Your task to perform on an android device: move an email to a new category in the gmail app Image 0: 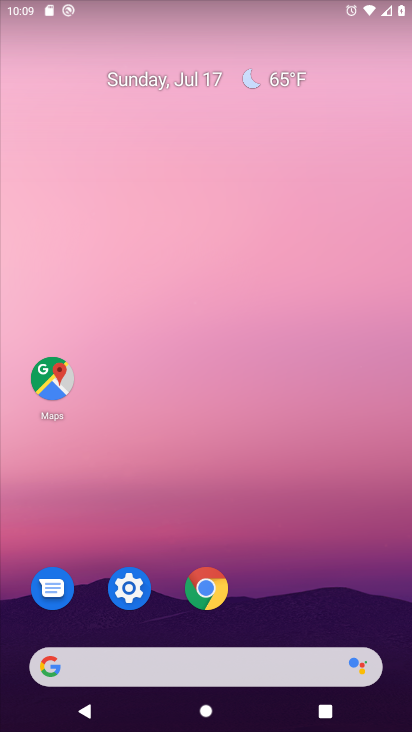
Step 0: drag from (282, 668) to (188, 358)
Your task to perform on an android device: move an email to a new category in the gmail app Image 1: 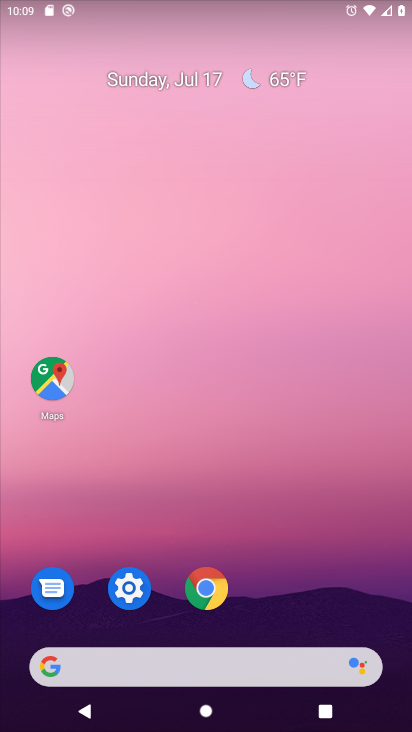
Step 1: drag from (163, 566) to (189, 263)
Your task to perform on an android device: move an email to a new category in the gmail app Image 2: 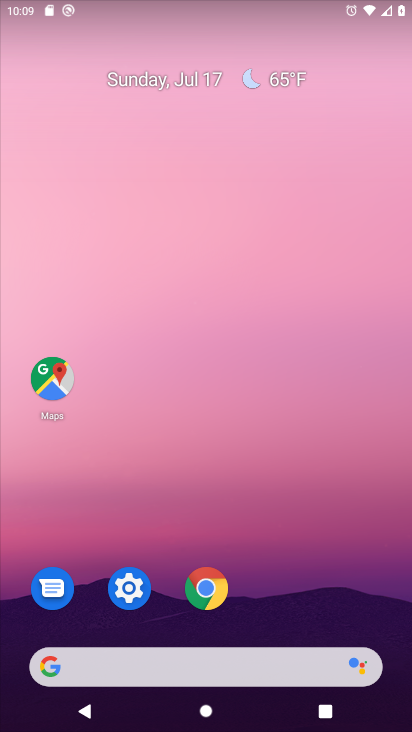
Step 2: drag from (194, 717) to (139, 253)
Your task to perform on an android device: move an email to a new category in the gmail app Image 3: 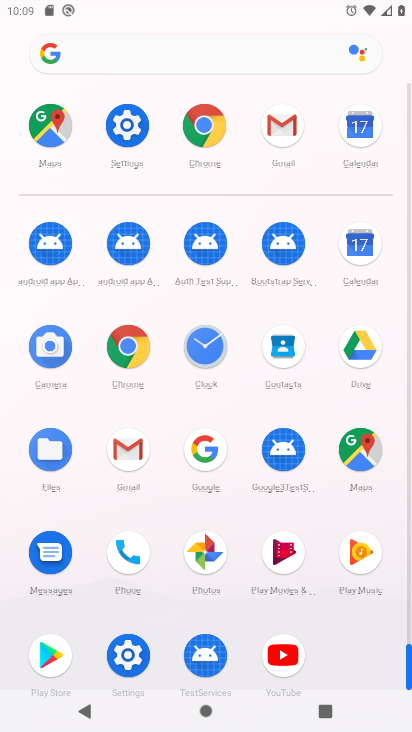
Step 3: click (120, 434)
Your task to perform on an android device: move an email to a new category in the gmail app Image 4: 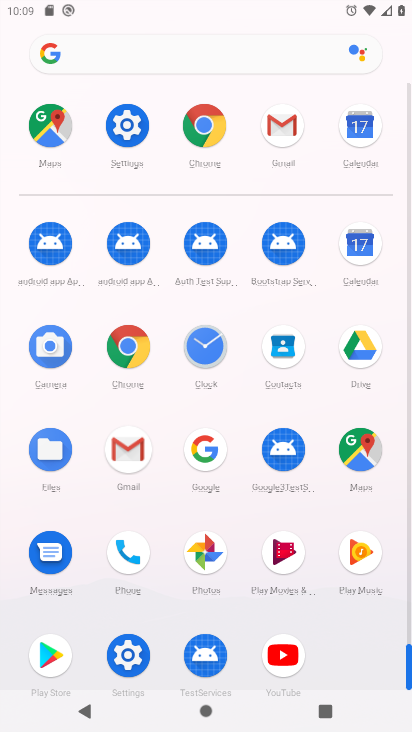
Step 4: click (119, 432)
Your task to perform on an android device: move an email to a new category in the gmail app Image 5: 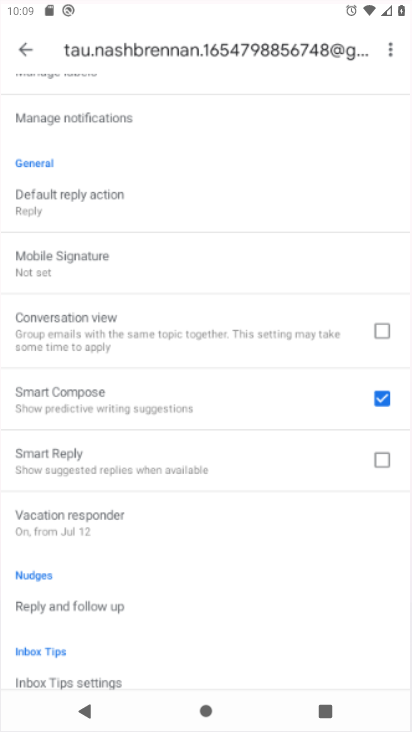
Step 5: click (120, 437)
Your task to perform on an android device: move an email to a new category in the gmail app Image 6: 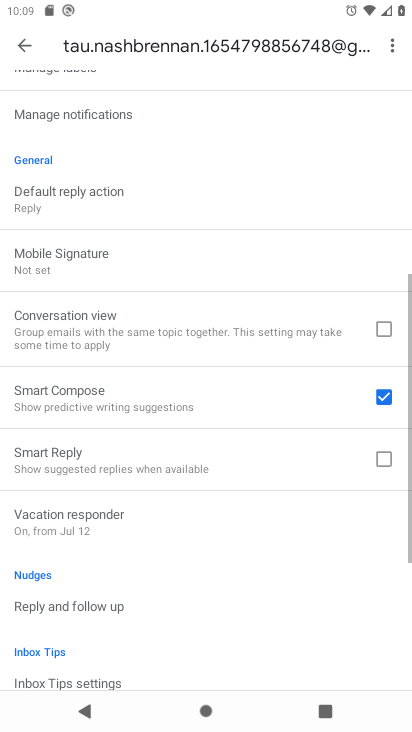
Step 6: click (123, 438)
Your task to perform on an android device: move an email to a new category in the gmail app Image 7: 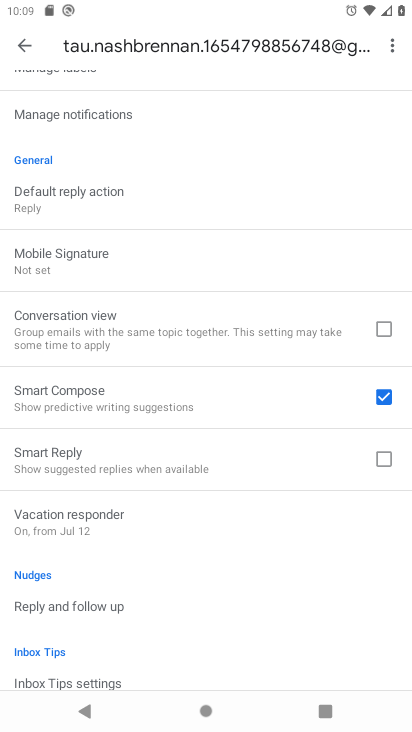
Step 7: drag from (94, 561) to (74, 200)
Your task to perform on an android device: move an email to a new category in the gmail app Image 8: 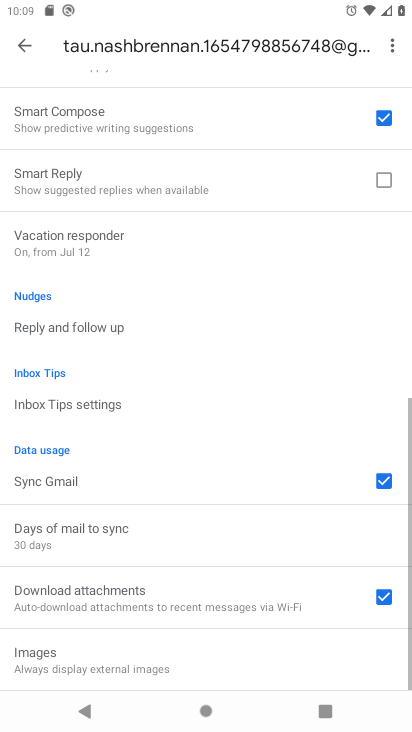
Step 8: drag from (144, 551) to (109, 225)
Your task to perform on an android device: move an email to a new category in the gmail app Image 9: 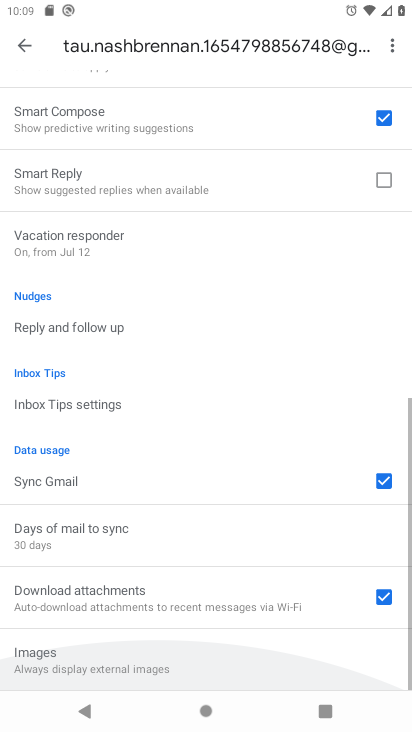
Step 9: drag from (128, 546) to (126, 280)
Your task to perform on an android device: move an email to a new category in the gmail app Image 10: 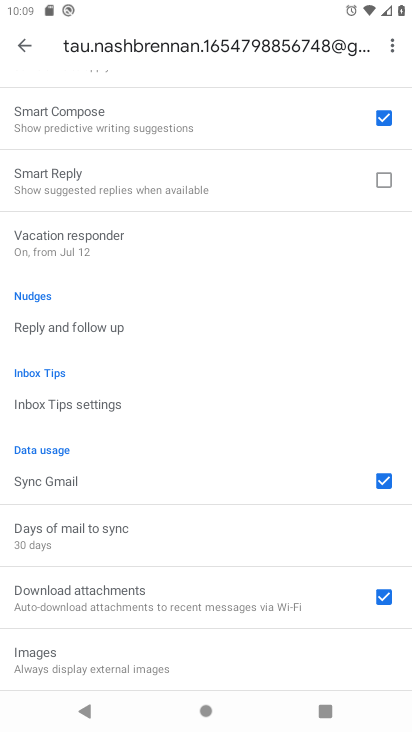
Step 10: click (17, 42)
Your task to perform on an android device: move an email to a new category in the gmail app Image 11: 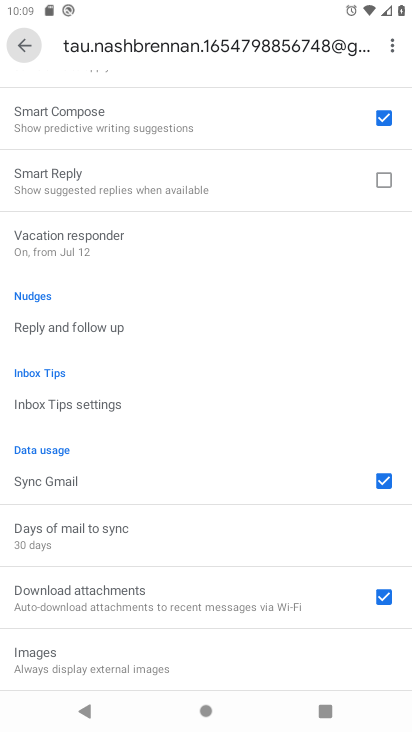
Step 11: click (17, 42)
Your task to perform on an android device: move an email to a new category in the gmail app Image 12: 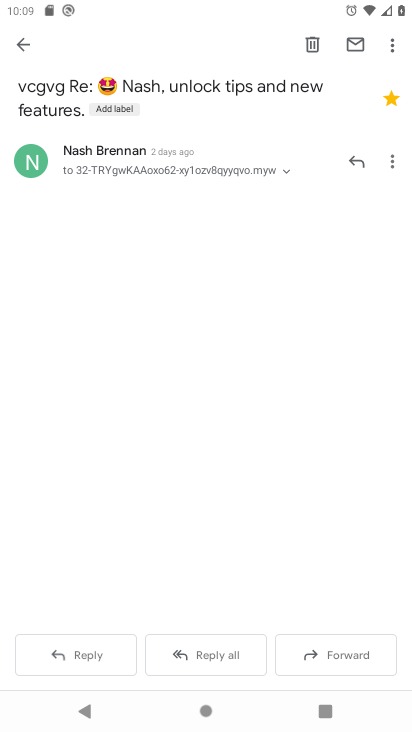
Step 12: click (393, 158)
Your task to perform on an android device: move an email to a new category in the gmail app Image 13: 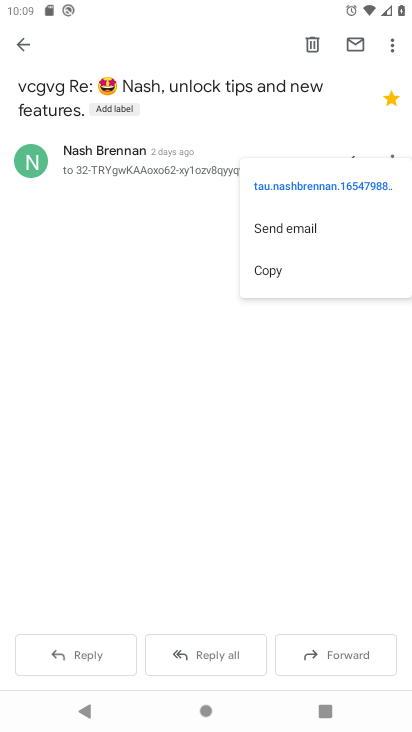
Step 13: click (107, 272)
Your task to perform on an android device: move an email to a new category in the gmail app Image 14: 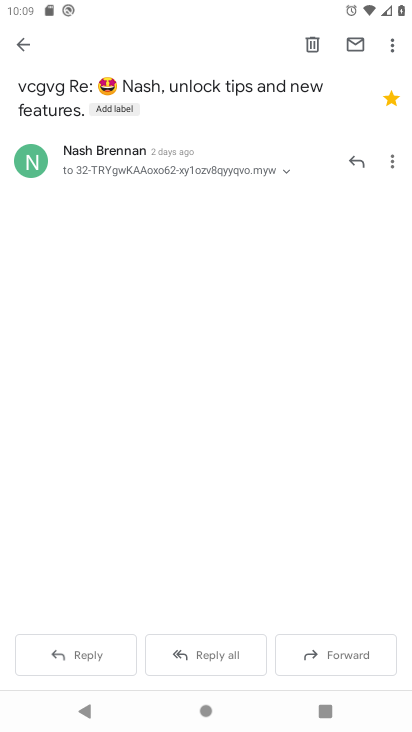
Step 14: click (138, 224)
Your task to perform on an android device: move an email to a new category in the gmail app Image 15: 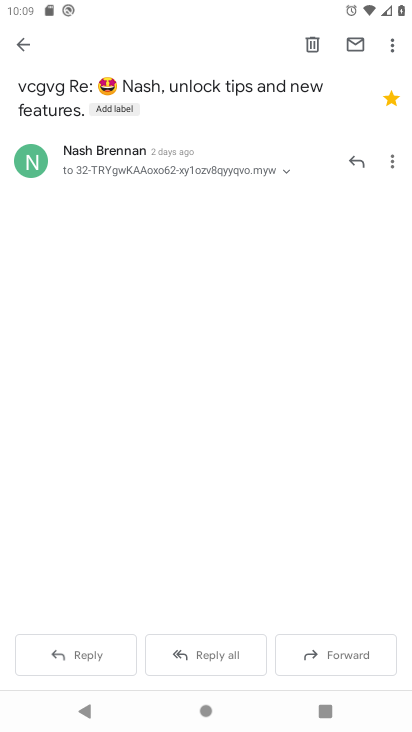
Step 15: click (391, 41)
Your task to perform on an android device: move an email to a new category in the gmail app Image 16: 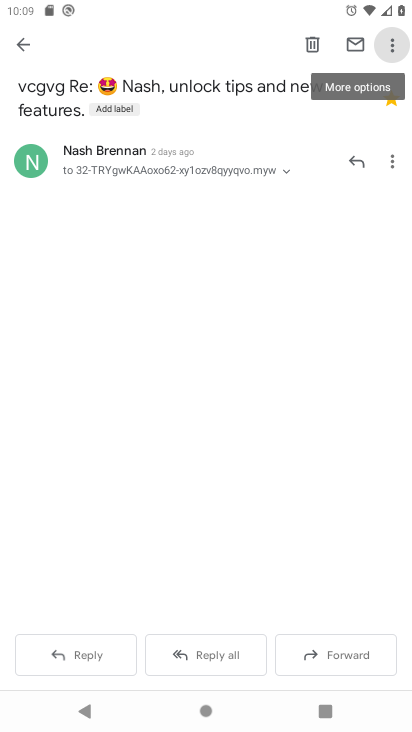
Step 16: click (391, 41)
Your task to perform on an android device: move an email to a new category in the gmail app Image 17: 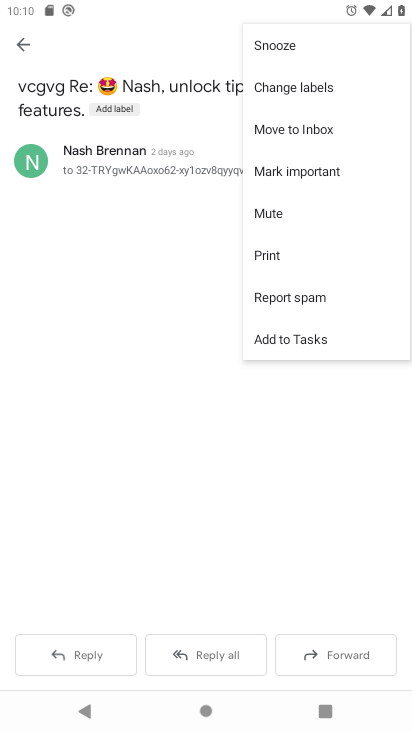
Step 17: click (391, 41)
Your task to perform on an android device: move an email to a new category in the gmail app Image 18: 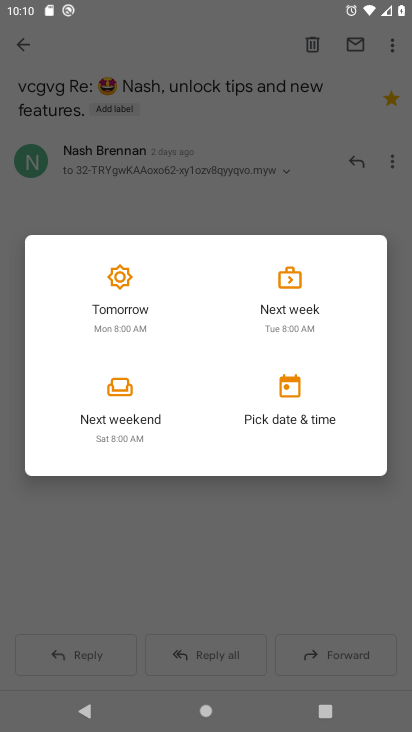
Step 18: click (305, 129)
Your task to perform on an android device: move an email to a new category in the gmail app Image 19: 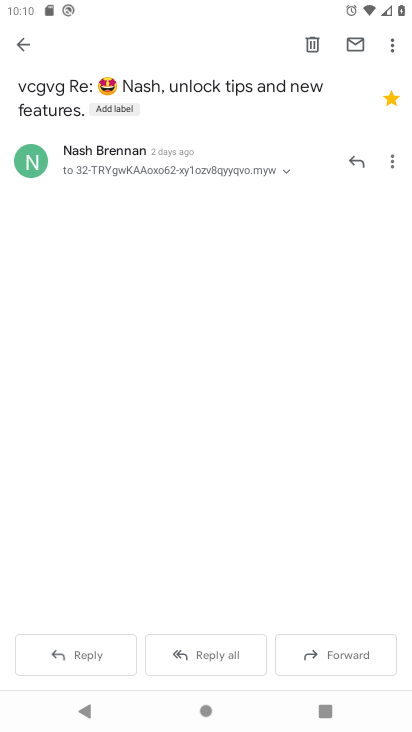
Step 19: click (391, 46)
Your task to perform on an android device: move an email to a new category in the gmail app Image 20: 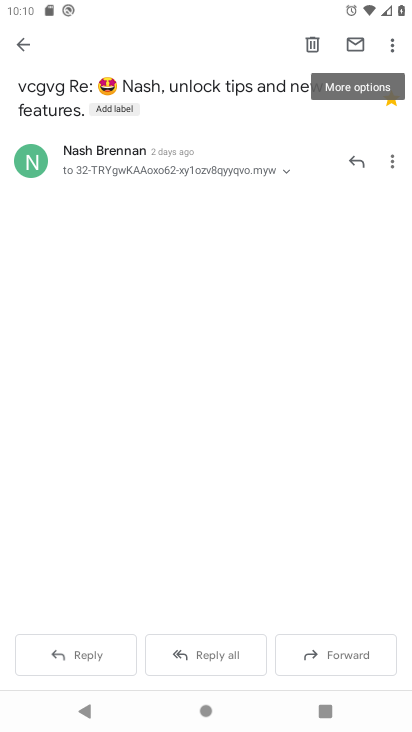
Step 20: click (389, 39)
Your task to perform on an android device: move an email to a new category in the gmail app Image 21: 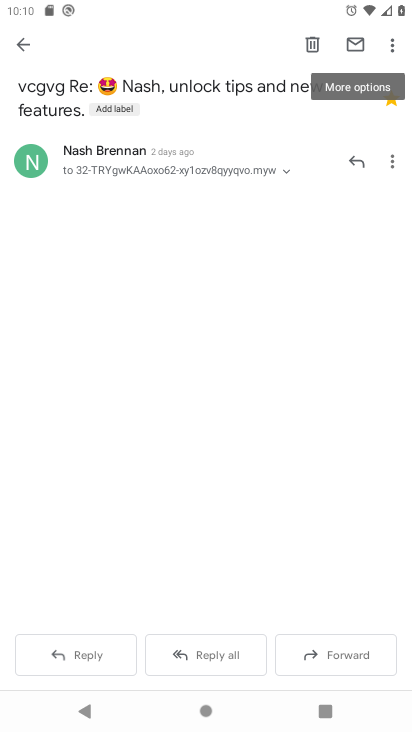
Step 21: click (389, 39)
Your task to perform on an android device: move an email to a new category in the gmail app Image 22: 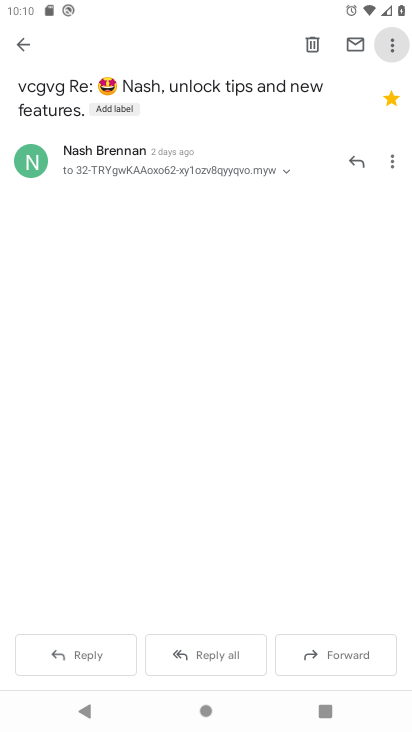
Step 22: click (389, 39)
Your task to perform on an android device: move an email to a new category in the gmail app Image 23: 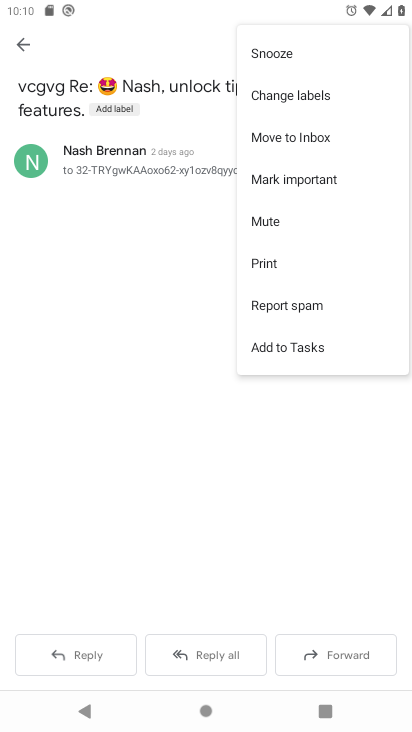
Step 23: click (297, 138)
Your task to perform on an android device: move an email to a new category in the gmail app Image 24: 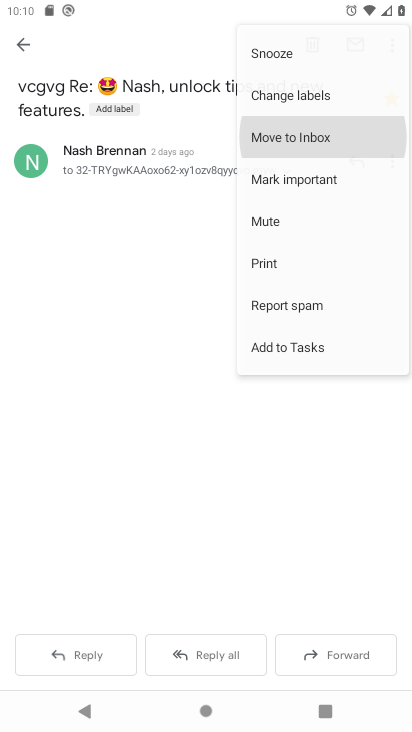
Step 24: click (297, 138)
Your task to perform on an android device: move an email to a new category in the gmail app Image 25: 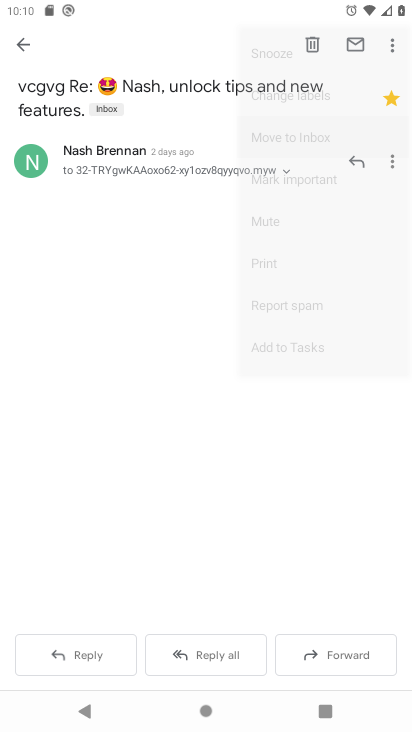
Step 25: click (299, 137)
Your task to perform on an android device: move an email to a new category in the gmail app Image 26: 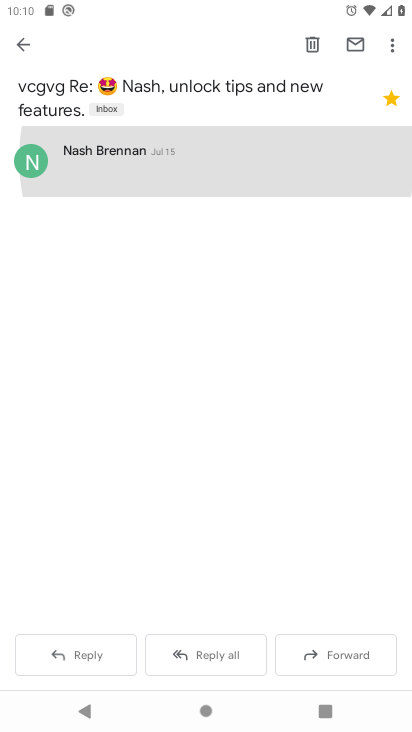
Step 26: click (299, 137)
Your task to perform on an android device: move an email to a new category in the gmail app Image 27: 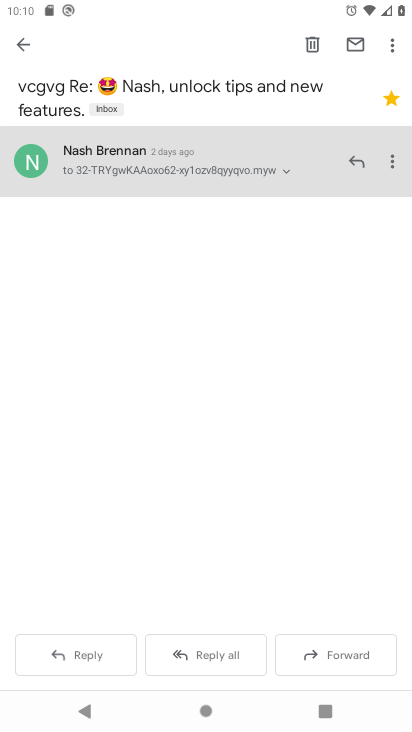
Step 27: click (302, 137)
Your task to perform on an android device: move an email to a new category in the gmail app Image 28: 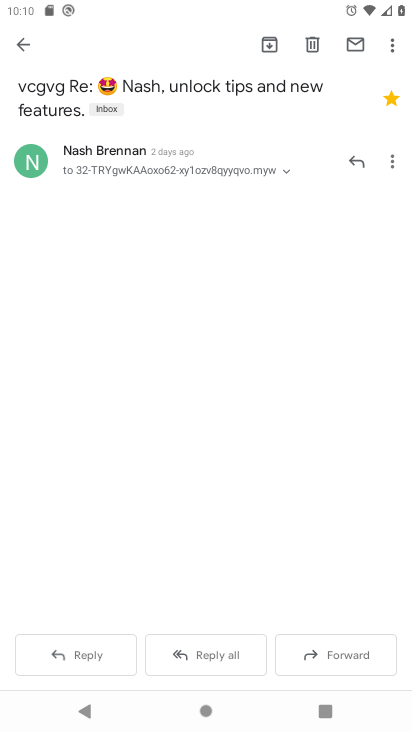
Step 28: task complete